Your task to perform on an android device: Open the phone app and click the voicemail tab. Image 0: 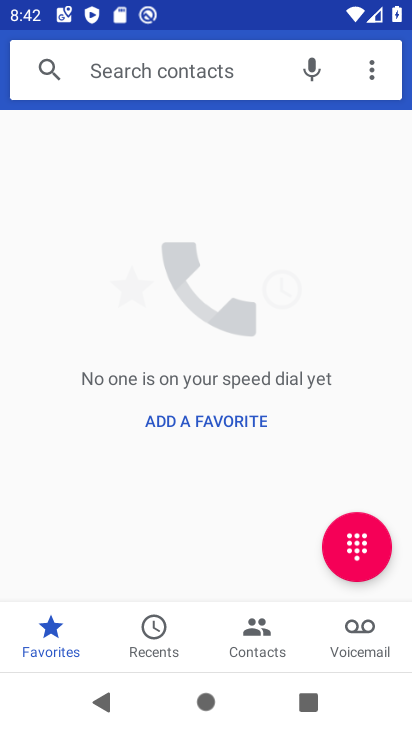
Step 0: press home button
Your task to perform on an android device: Open the phone app and click the voicemail tab. Image 1: 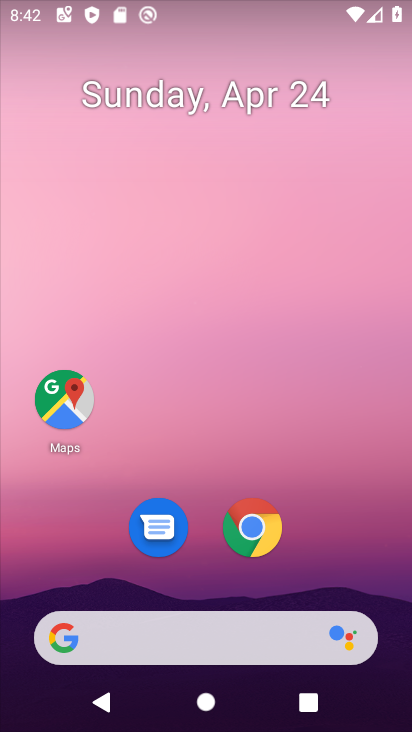
Step 1: drag from (383, 569) to (349, 0)
Your task to perform on an android device: Open the phone app and click the voicemail tab. Image 2: 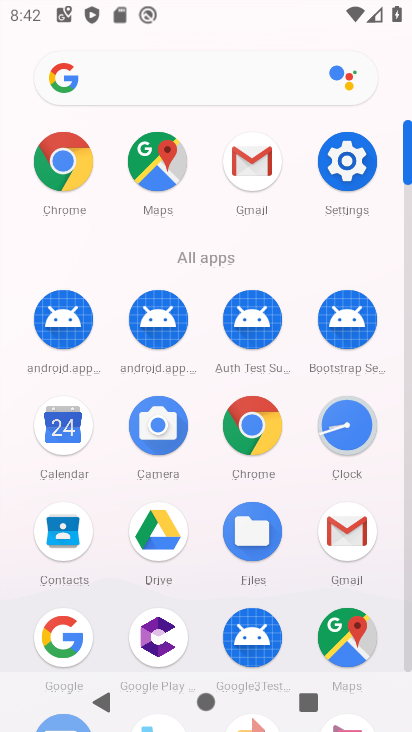
Step 2: drag from (407, 439) to (405, 327)
Your task to perform on an android device: Open the phone app and click the voicemail tab. Image 3: 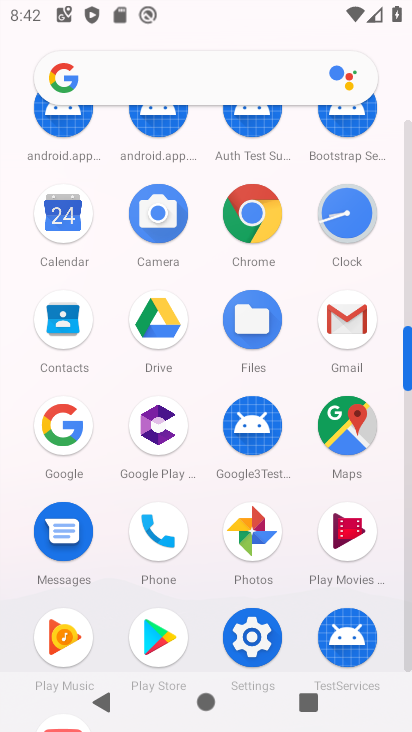
Step 3: click (155, 533)
Your task to perform on an android device: Open the phone app and click the voicemail tab. Image 4: 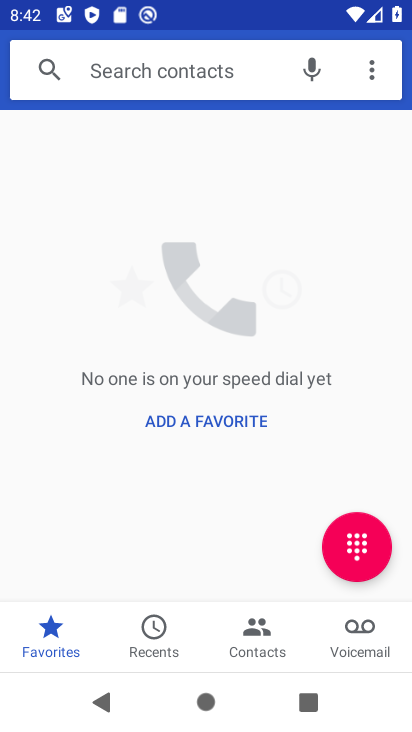
Step 4: click (351, 637)
Your task to perform on an android device: Open the phone app and click the voicemail tab. Image 5: 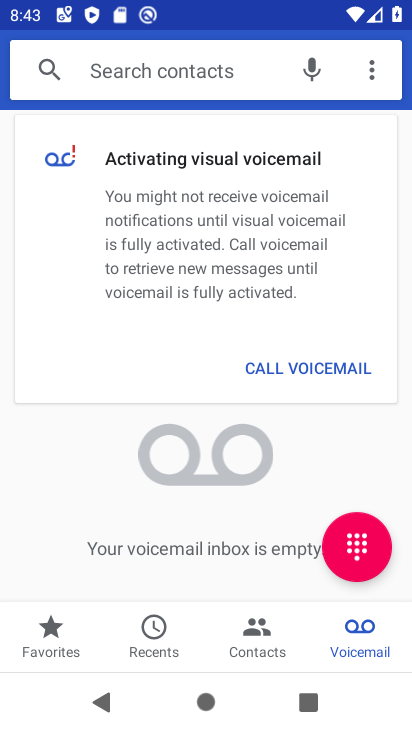
Step 5: task complete